Your task to perform on an android device: toggle wifi Image 0: 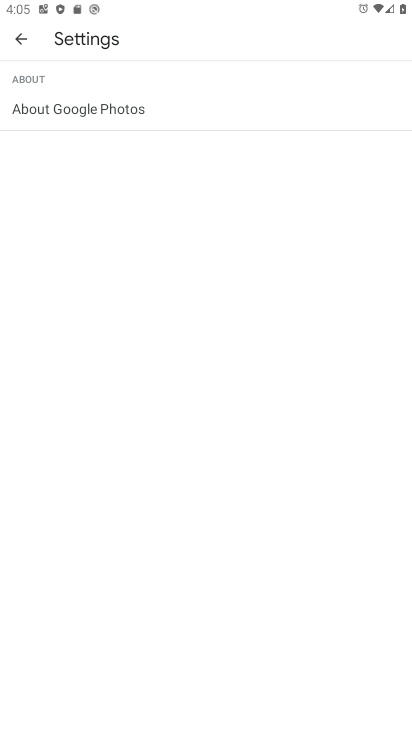
Step 0: press home button
Your task to perform on an android device: toggle wifi Image 1: 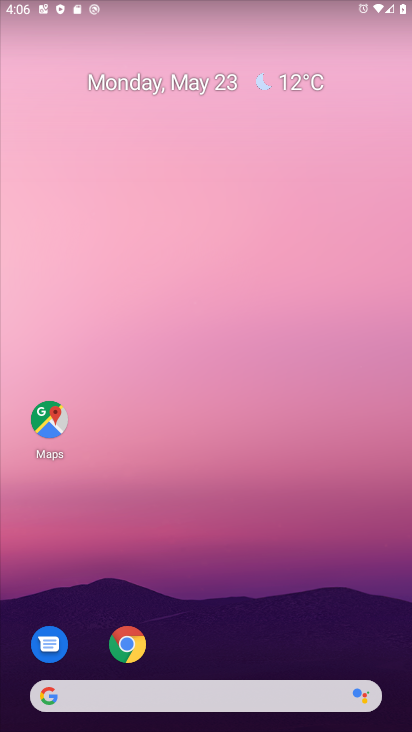
Step 1: drag from (200, 630) to (405, 8)
Your task to perform on an android device: toggle wifi Image 2: 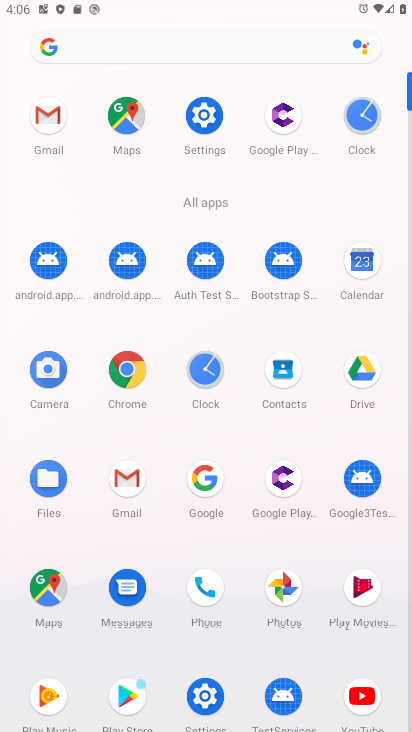
Step 2: click (198, 130)
Your task to perform on an android device: toggle wifi Image 3: 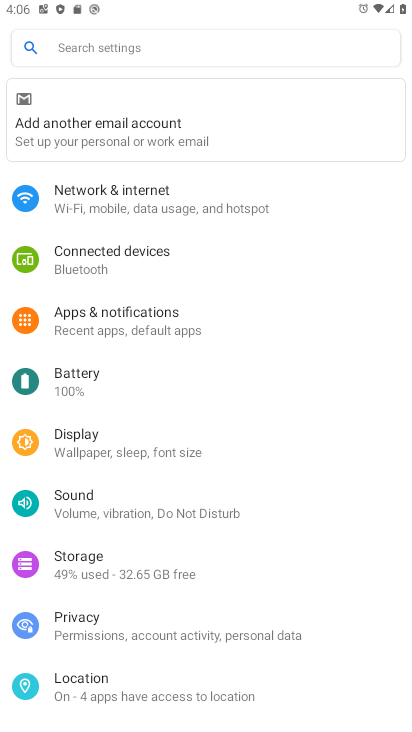
Step 3: click (182, 198)
Your task to perform on an android device: toggle wifi Image 4: 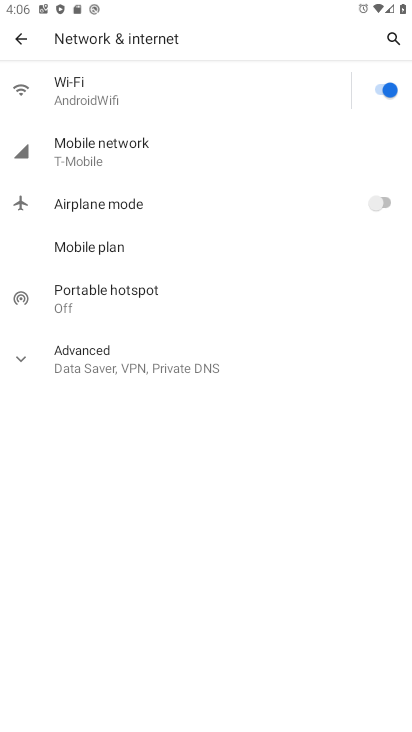
Step 4: click (388, 78)
Your task to perform on an android device: toggle wifi Image 5: 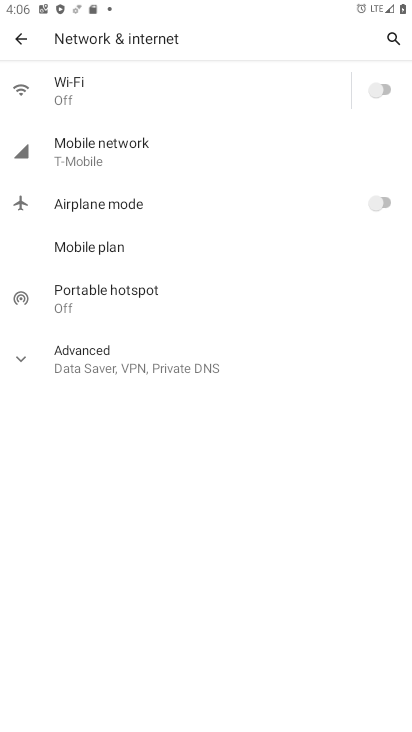
Step 5: task complete